Your task to perform on an android device: Show me recent news Image 0: 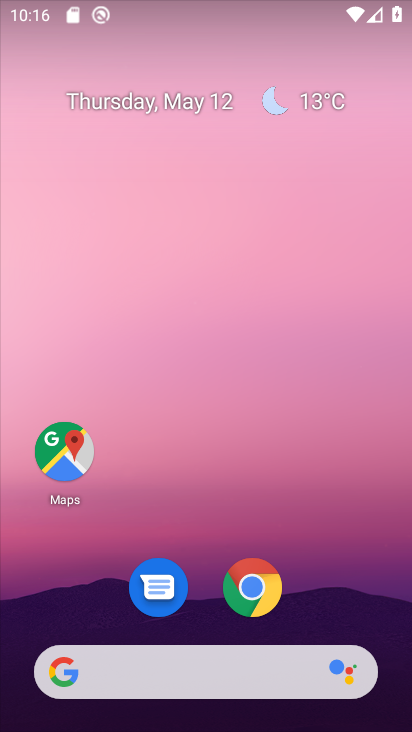
Step 0: click (168, 687)
Your task to perform on an android device: Show me recent news Image 1: 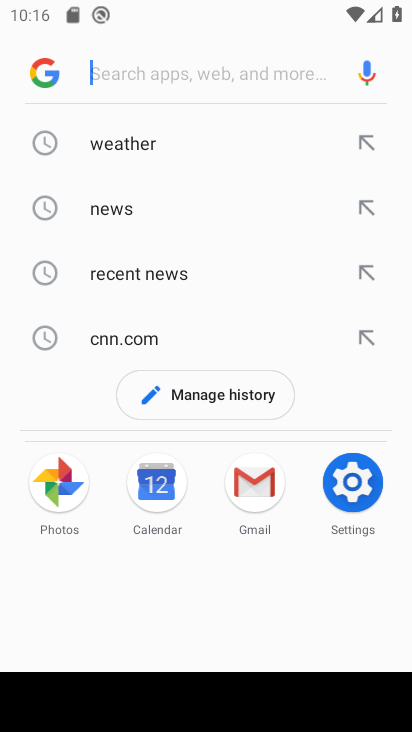
Step 1: click (166, 264)
Your task to perform on an android device: Show me recent news Image 2: 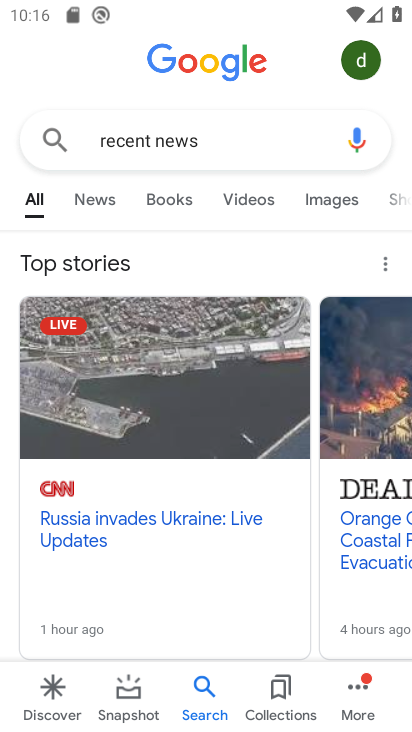
Step 2: task complete